Your task to perform on an android device: Open location settings Image 0: 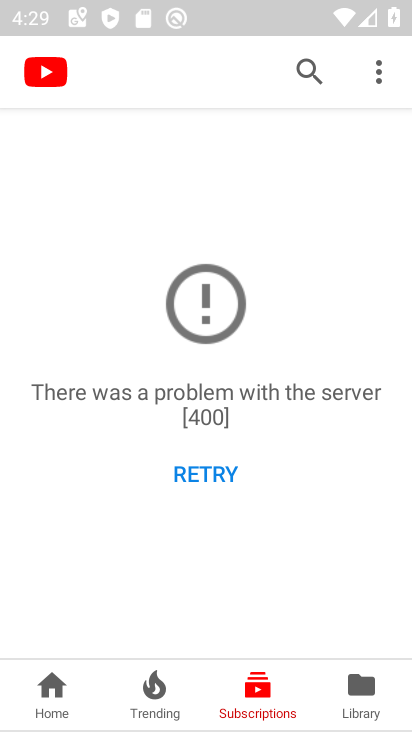
Step 0: press back button
Your task to perform on an android device: Open location settings Image 1: 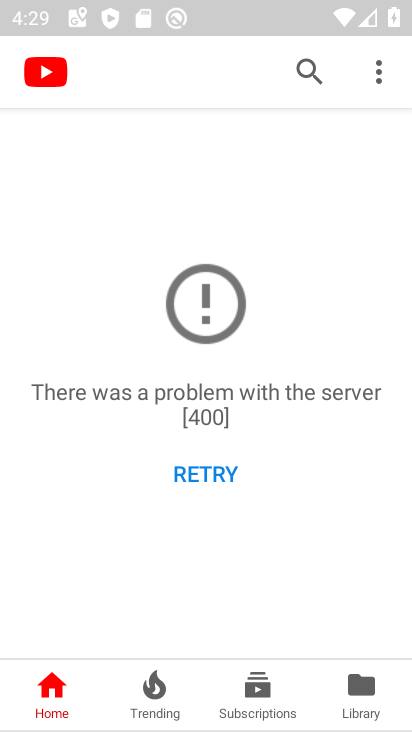
Step 1: press back button
Your task to perform on an android device: Open location settings Image 2: 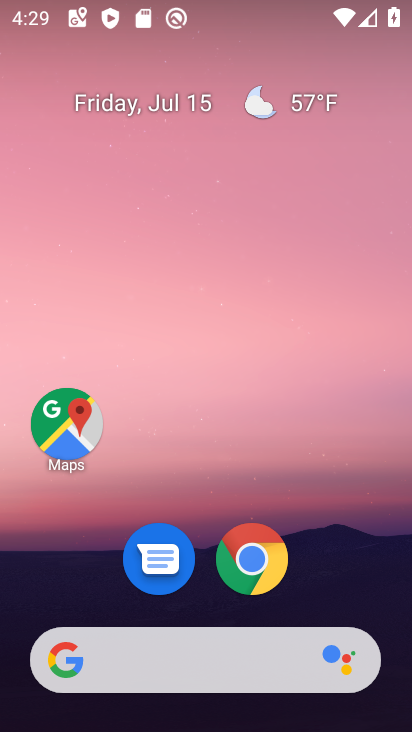
Step 2: drag from (62, 582) to (224, 30)
Your task to perform on an android device: Open location settings Image 3: 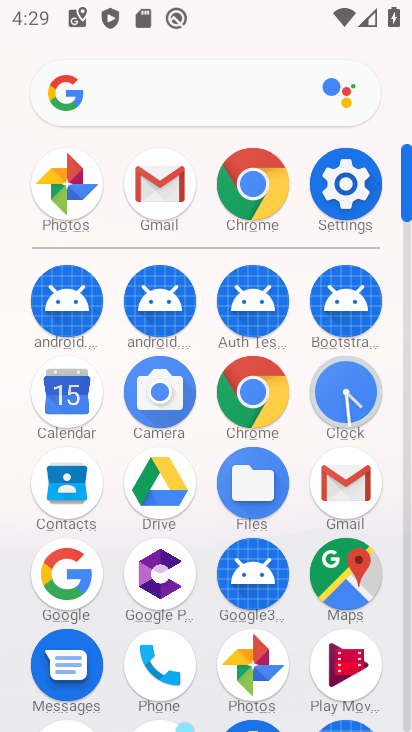
Step 3: click (348, 182)
Your task to perform on an android device: Open location settings Image 4: 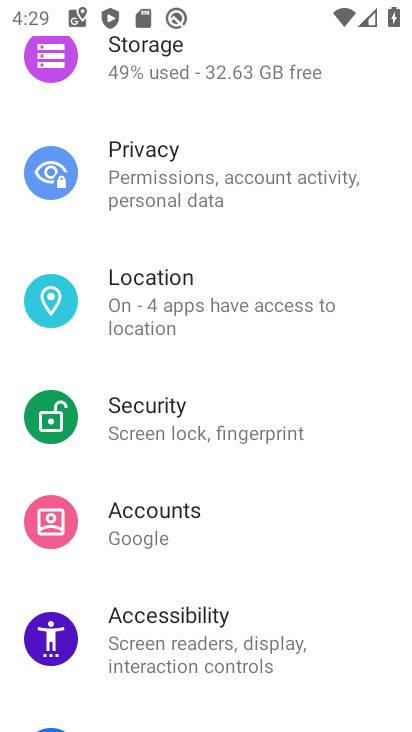
Step 4: click (183, 293)
Your task to perform on an android device: Open location settings Image 5: 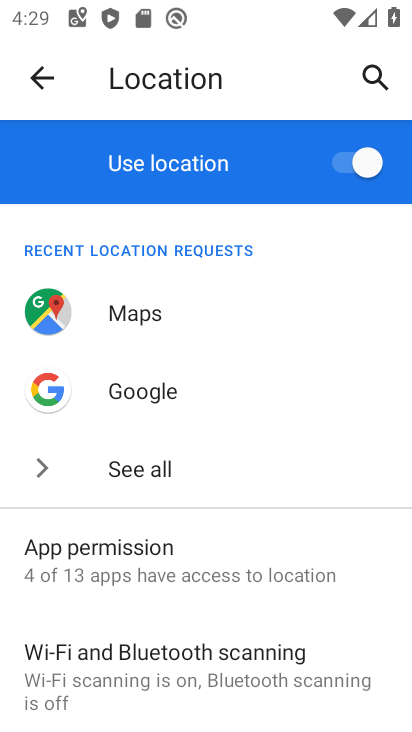
Step 5: task complete